Your task to perform on an android device: turn on bluetooth scan Image 0: 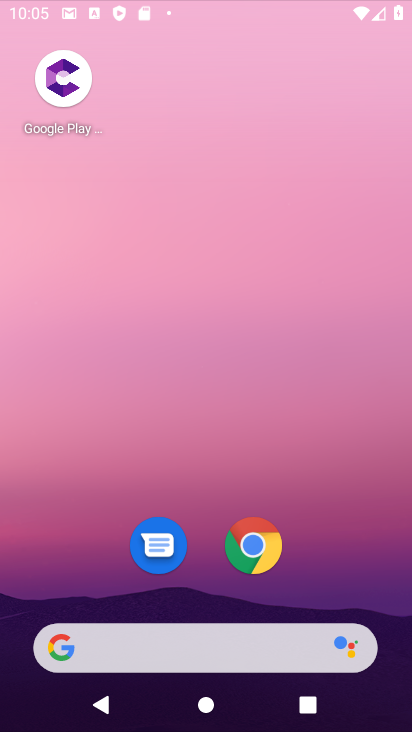
Step 0: press home button
Your task to perform on an android device: turn on bluetooth scan Image 1: 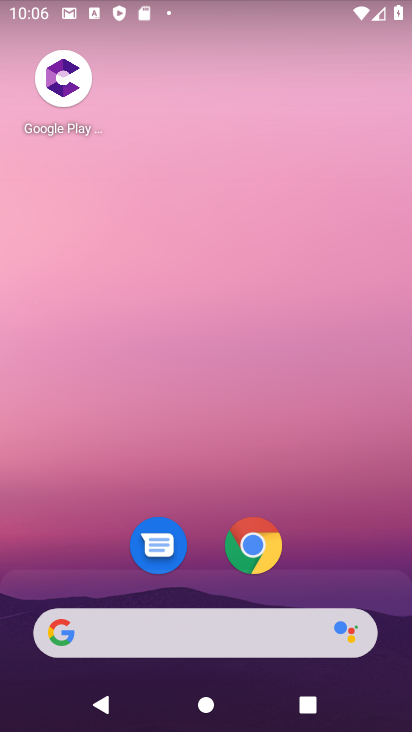
Step 1: drag from (378, 605) to (393, 61)
Your task to perform on an android device: turn on bluetooth scan Image 2: 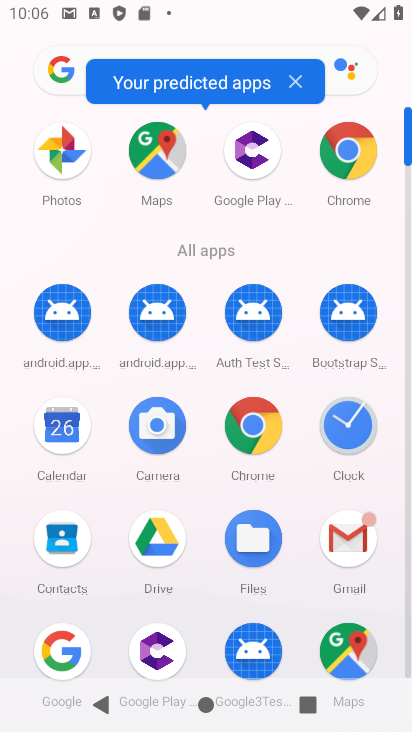
Step 2: drag from (290, 608) to (373, 274)
Your task to perform on an android device: turn on bluetooth scan Image 3: 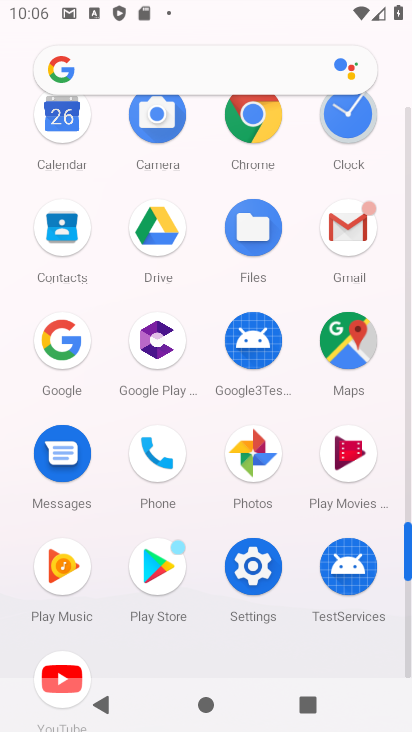
Step 3: click (261, 561)
Your task to perform on an android device: turn on bluetooth scan Image 4: 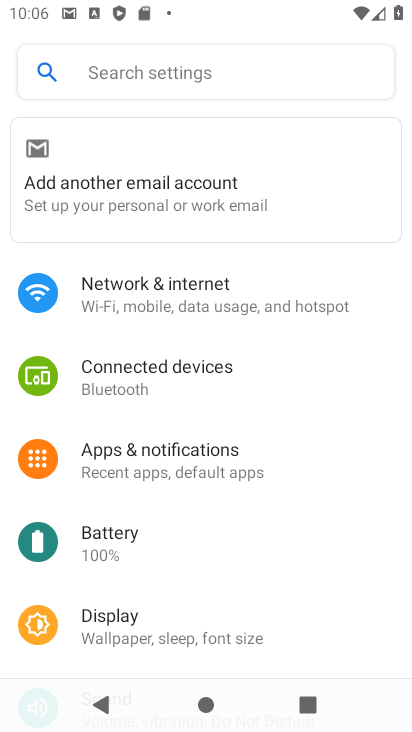
Step 4: drag from (294, 588) to (277, 492)
Your task to perform on an android device: turn on bluetooth scan Image 5: 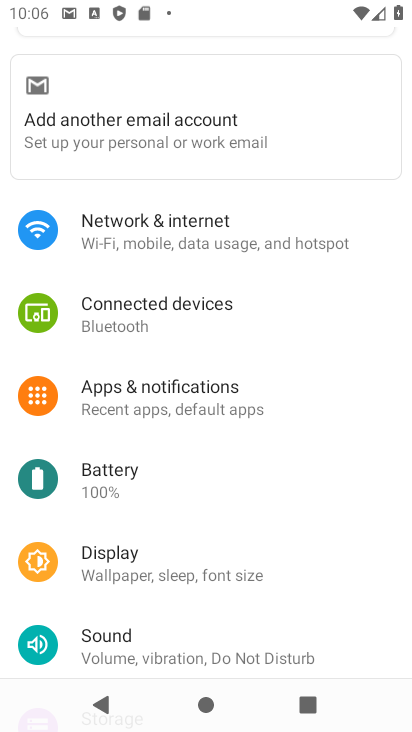
Step 5: click (224, 306)
Your task to perform on an android device: turn on bluetooth scan Image 6: 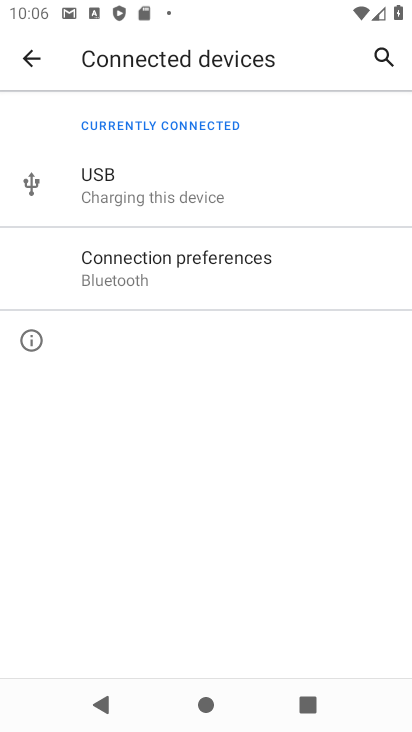
Step 6: click (229, 285)
Your task to perform on an android device: turn on bluetooth scan Image 7: 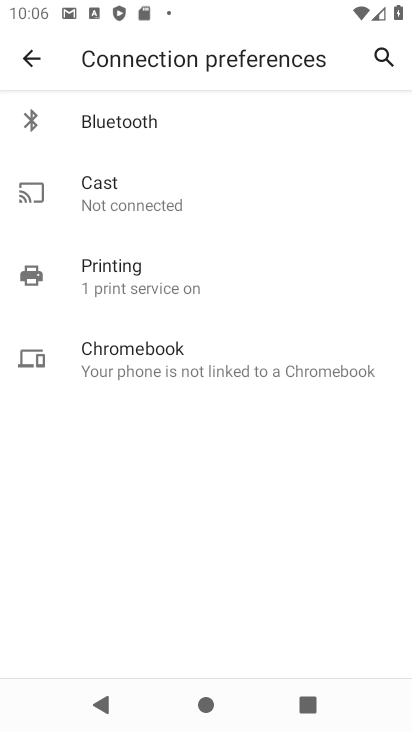
Step 7: click (220, 127)
Your task to perform on an android device: turn on bluetooth scan Image 8: 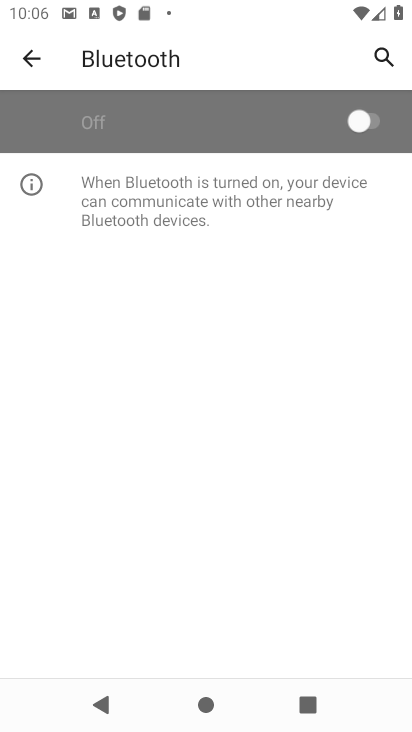
Step 8: click (364, 123)
Your task to perform on an android device: turn on bluetooth scan Image 9: 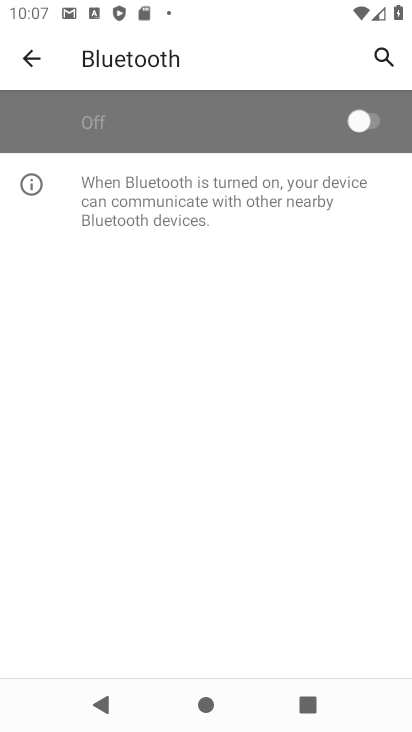
Step 9: click (377, 123)
Your task to perform on an android device: turn on bluetooth scan Image 10: 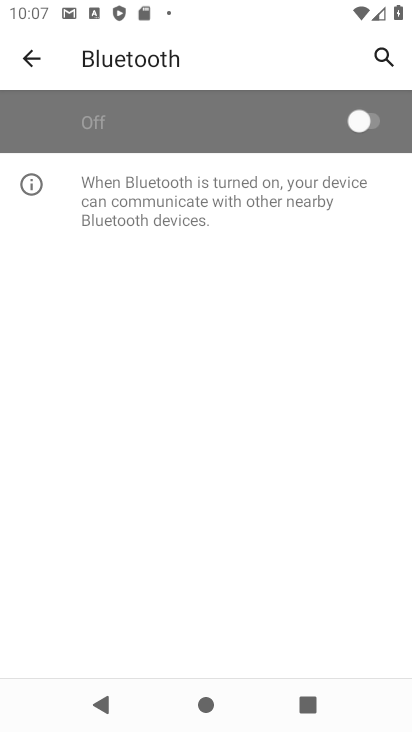
Step 10: click (378, 122)
Your task to perform on an android device: turn on bluetooth scan Image 11: 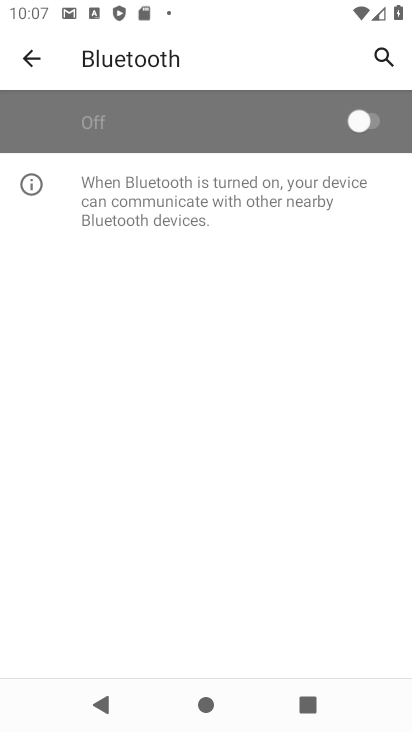
Step 11: click (378, 122)
Your task to perform on an android device: turn on bluetooth scan Image 12: 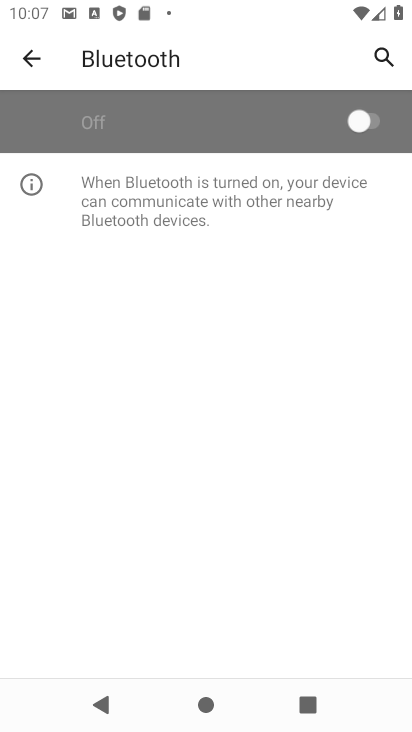
Step 12: click (378, 122)
Your task to perform on an android device: turn on bluetooth scan Image 13: 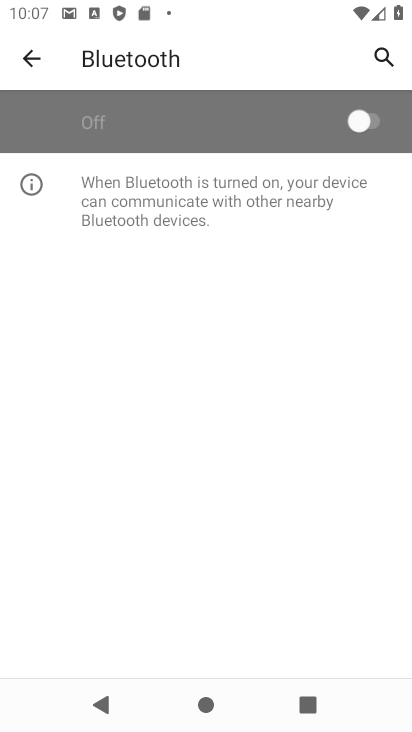
Step 13: click (378, 122)
Your task to perform on an android device: turn on bluetooth scan Image 14: 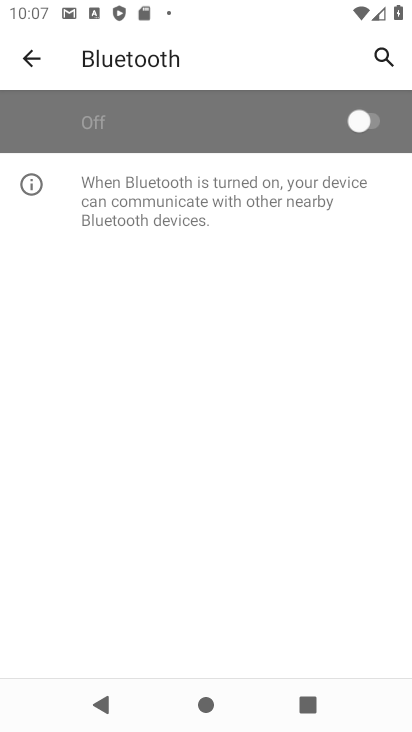
Step 14: click (378, 122)
Your task to perform on an android device: turn on bluetooth scan Image 15: 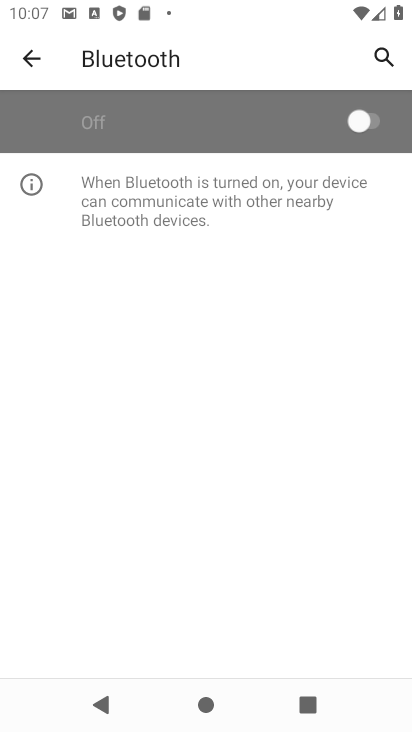
Step 15: click (378, 122)
Your task to perform on an android device: turn on bluetooth scan Image 16: 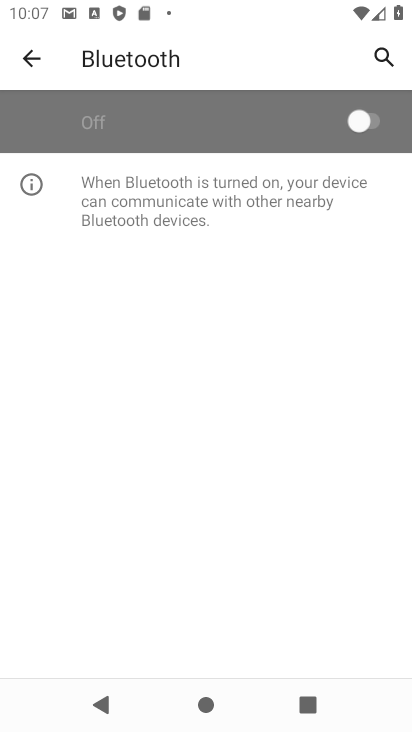
Step 16: task complete